Your task to perform on an android device: Clear the shopping cart on amazon. Search for "beats solo 3" on amazon, select the first entry, and add it to the cart. Image 0: 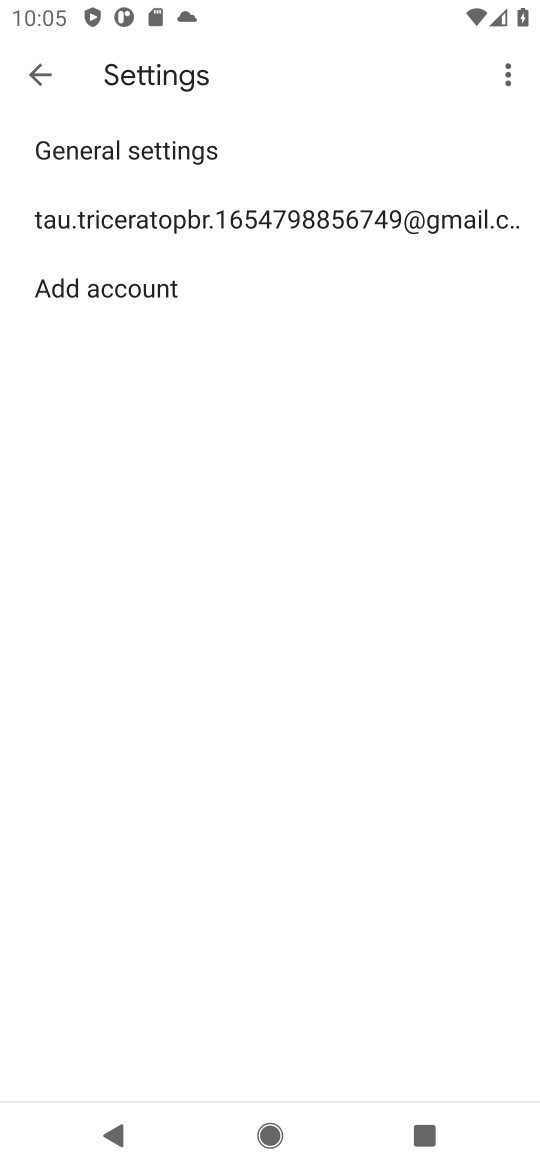
Step 0: press home button
Your task to perform on an android device: Clear the shopping cart on amazon. Search for "beats solo 3" on amazon, select the first entry, and add it to the cart. Image 1: 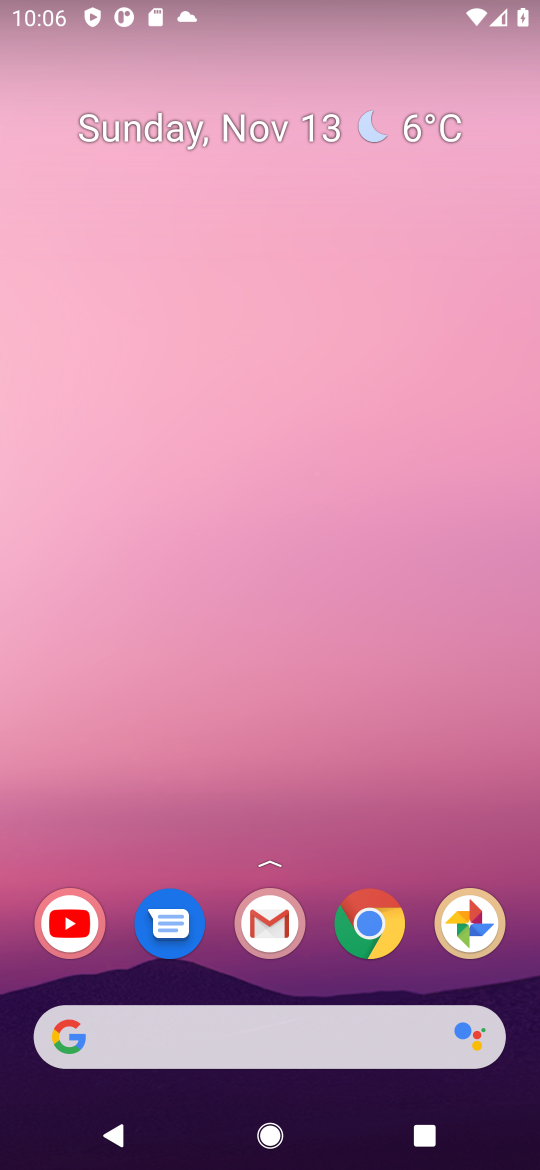
Step 1: click (348, 927)
Your task to perform on an android device: Clear the shopping cart on amazon. Search for "beats solo 3" on amazon, select the first entry, and add it to the cart. Image 2: 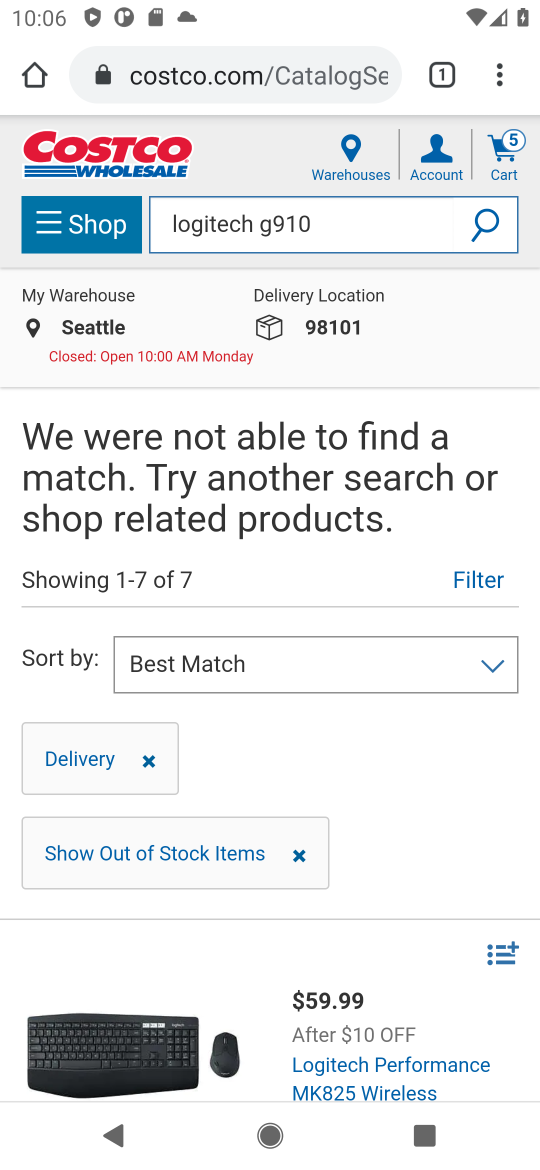
Step 2: click (226, 65)
Your task to perform on an android device: Clear the shopping cart on amazon. Search for "beats solo 3" on amazon, select the first entry, and add it to the cart. Image 3: 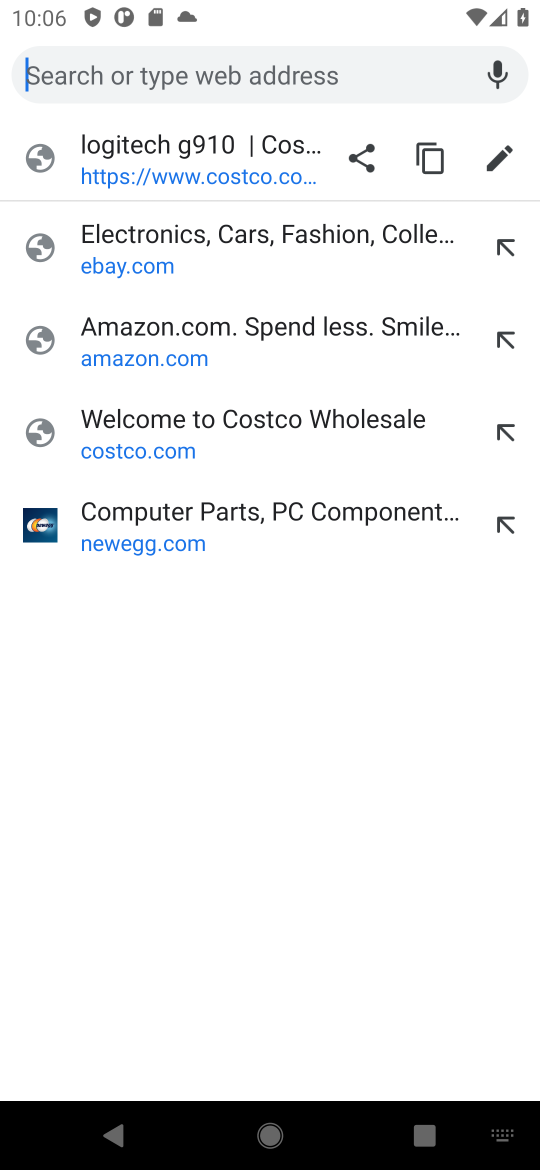
Step 3: click (261, 323)
Your task to perform on an android device: Clear the shopping cart on amazon. Search for "beats solo 3" on amazon, select the first entry, and add it to the cart. Image 4: 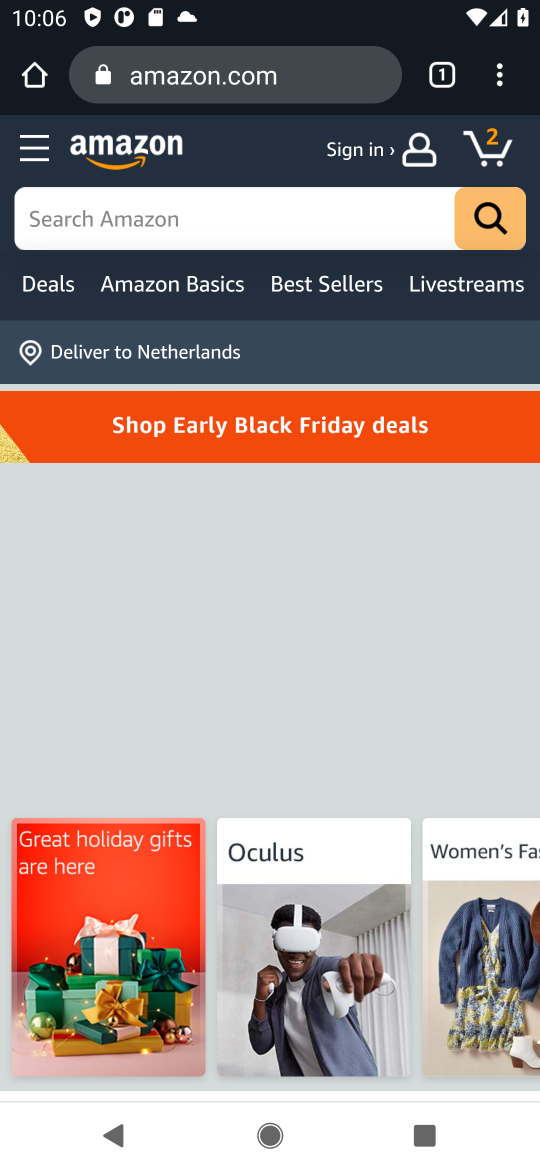
Step 4: click (486, 153)
Your task to perform on an android device: Clear the shopping cart on amazon. Search for "beats solo 3" on amazon, select the first entry, and add it to the cart. Image 5: 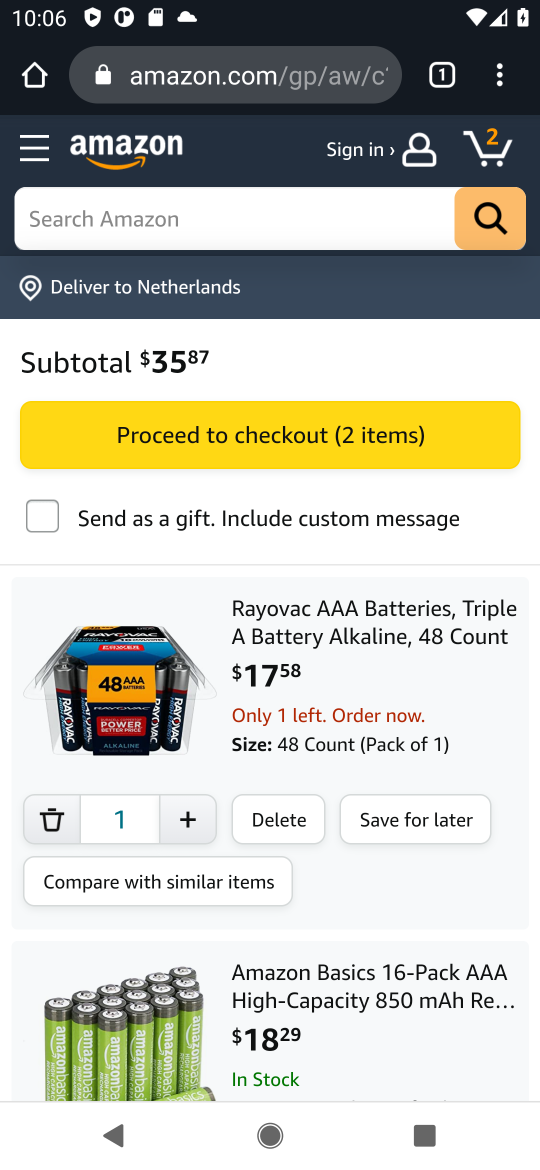
Step 5: click (280, 816)
Your task to perform on an android device: Clear the shopping cart on amazon. Search for "beats solo 3" on amazon, select the first entry, and add it to the cart. Image 6: 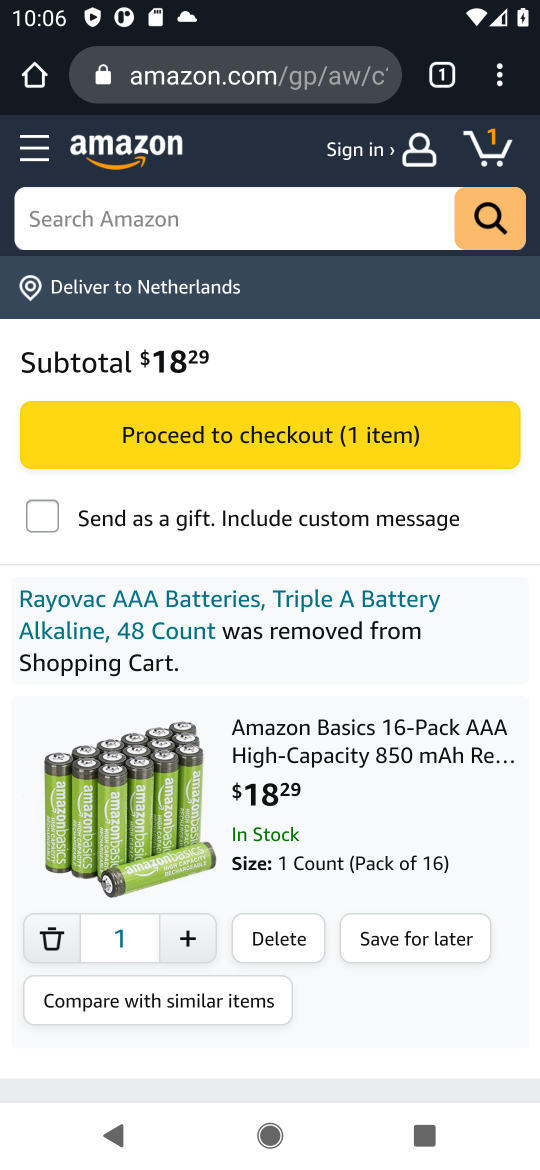
Step 6: click (299, 930)
Your task to perform on an android device: Clear the shopping cart on amazon. Search for "beats solo 3" on amazon, select the first entry, and add it to the cart. Image 7: 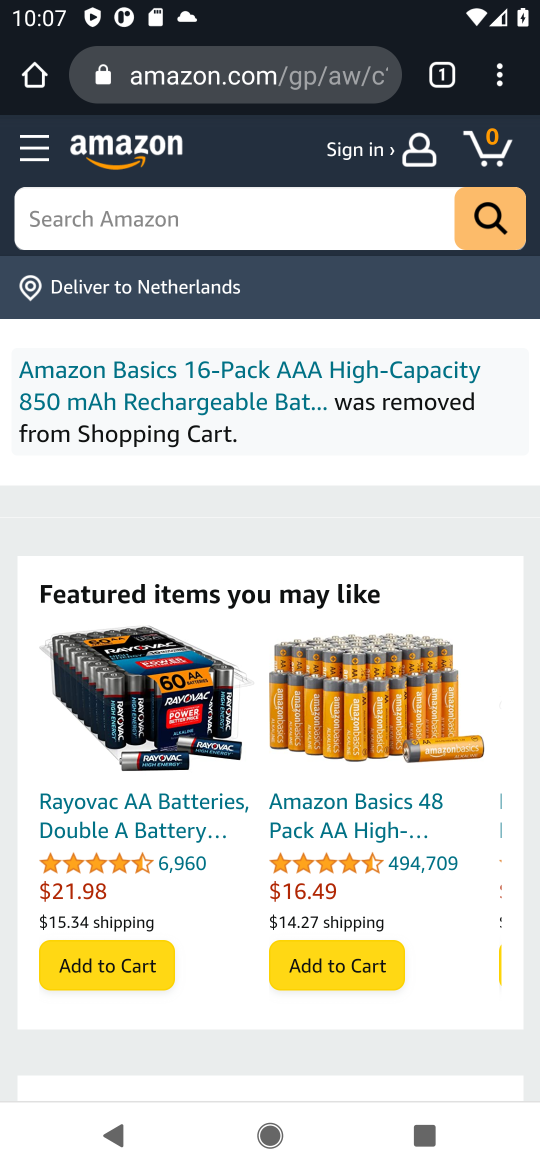
Step 7: click (339, 209)
Your task to perform on an android device: Clear the shopping cart on amazon. Search for "beats solo 3" on amazon, select the first entry, and add it to the cart. Image 8: 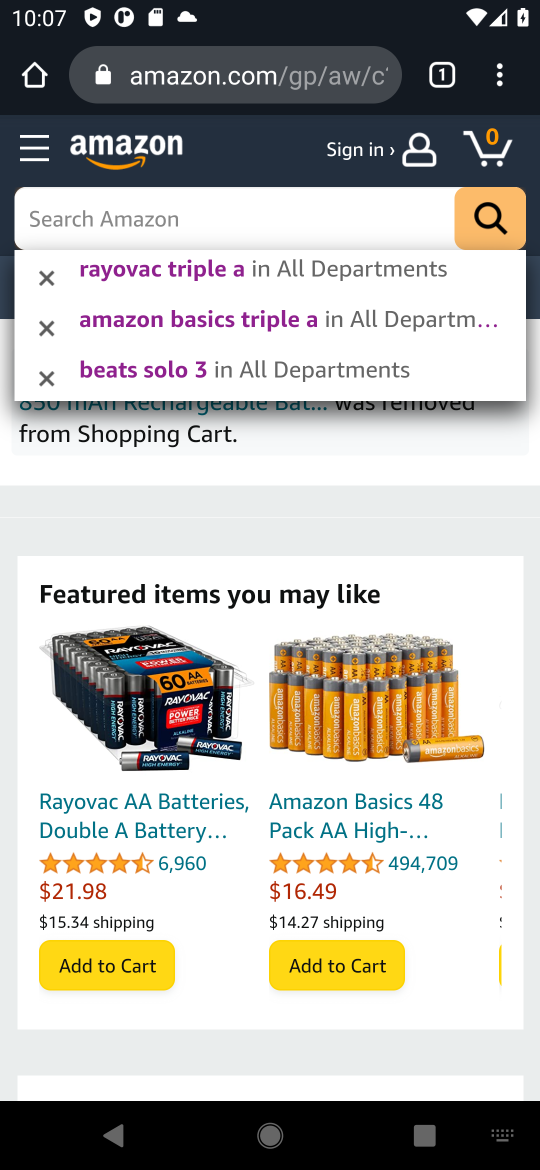
Step 8: type "beats solo 3"
Your task to perform on an android device: Clear the shopping cart on amazon. Search for "beats solo 3" on amazon, select the first entry, and add it to the cart. Image 9: 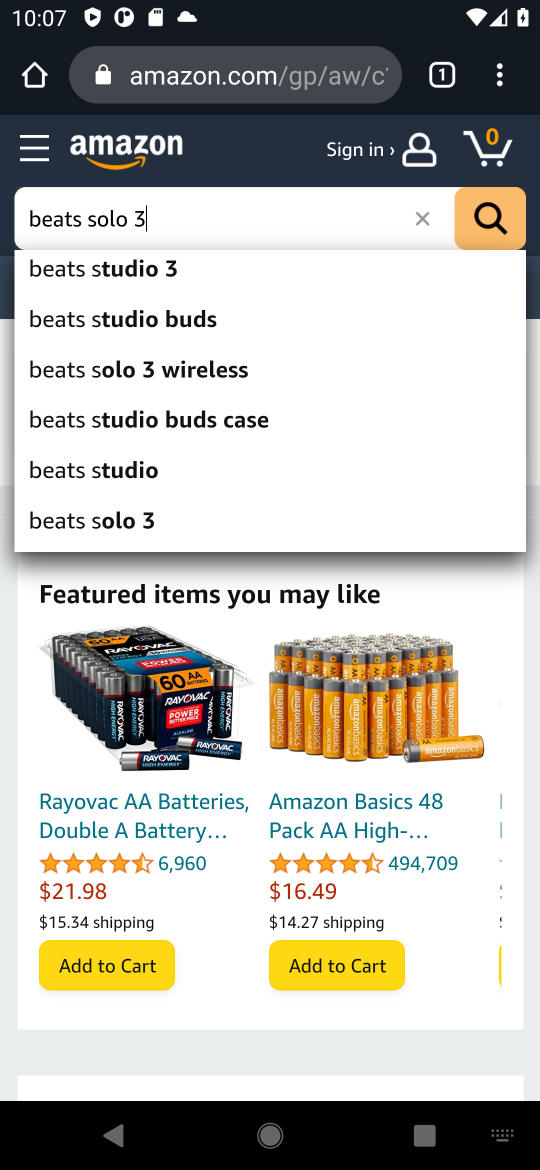
Step 9: press enter
Your task to perform on an android device: Clear the shopping cart on amazon. Search for "beats solo 3" on amazon, select the first entry, and add it to the cart. Image 10: 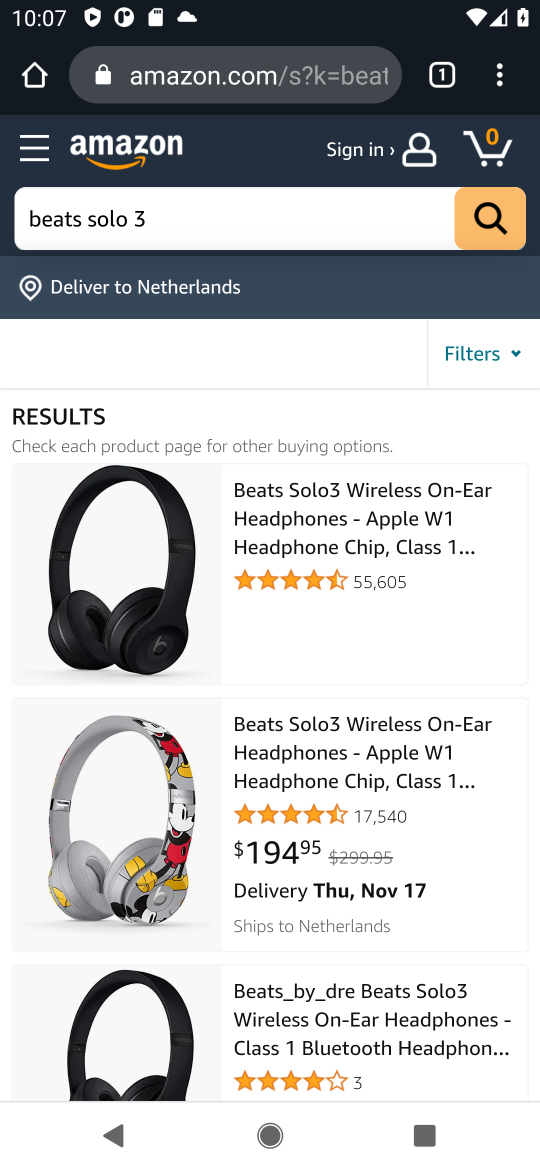
Step 10: click (106, 534)
Your task to perform on an android device: Clear the shopping cart on amazon. Search for "beats solo 3" on amazon, select the first entry, and add it to the cart. Image 11: 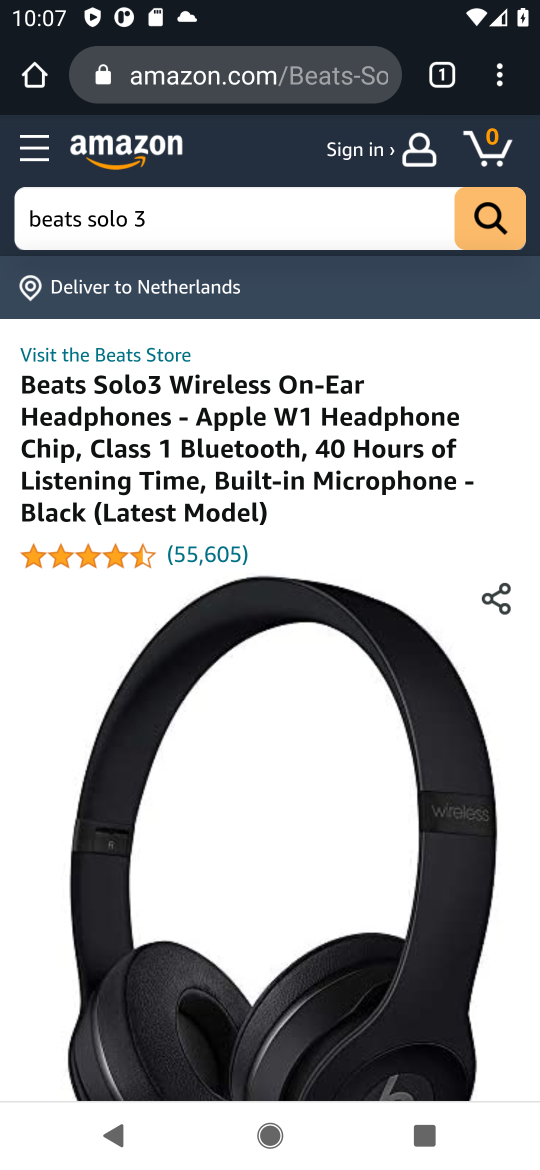
Step 11: drag from (342, 789) to (317, 200)
Your task to perform on an android device: Clear the shopping cart on amazon. Search for "beats solo 3" on amazon, select the first entry, and add it to the cart. Image 12: 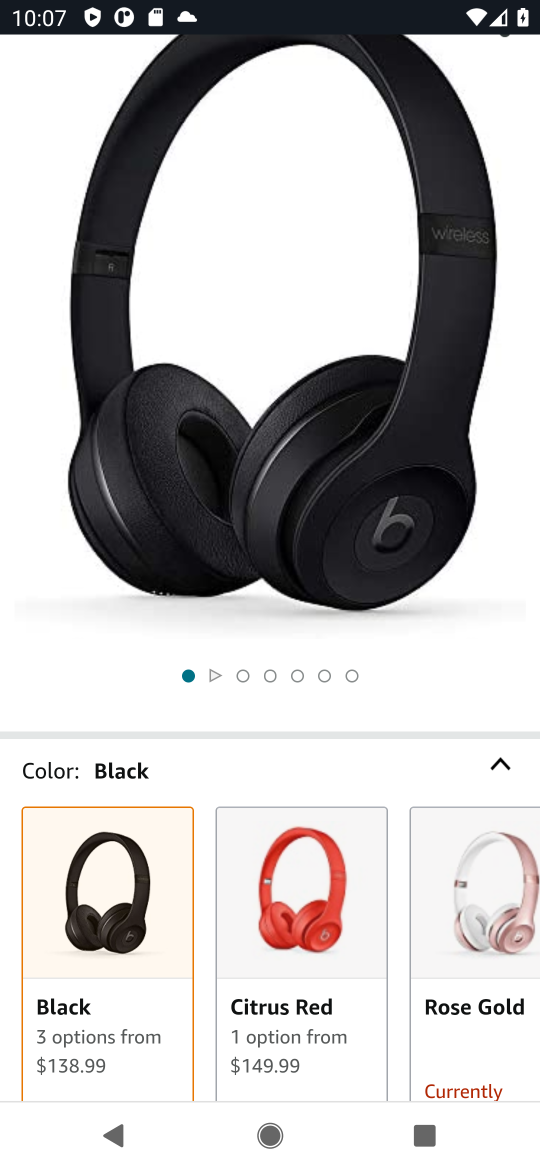
Step 12: drag from (357, 711) to (374, 238)
Your task to perform on an android device: Clear the shopping cart on amazon. Search for "beats solo 3" on amazon, select the first entry, and add it to the cart. Image 13: 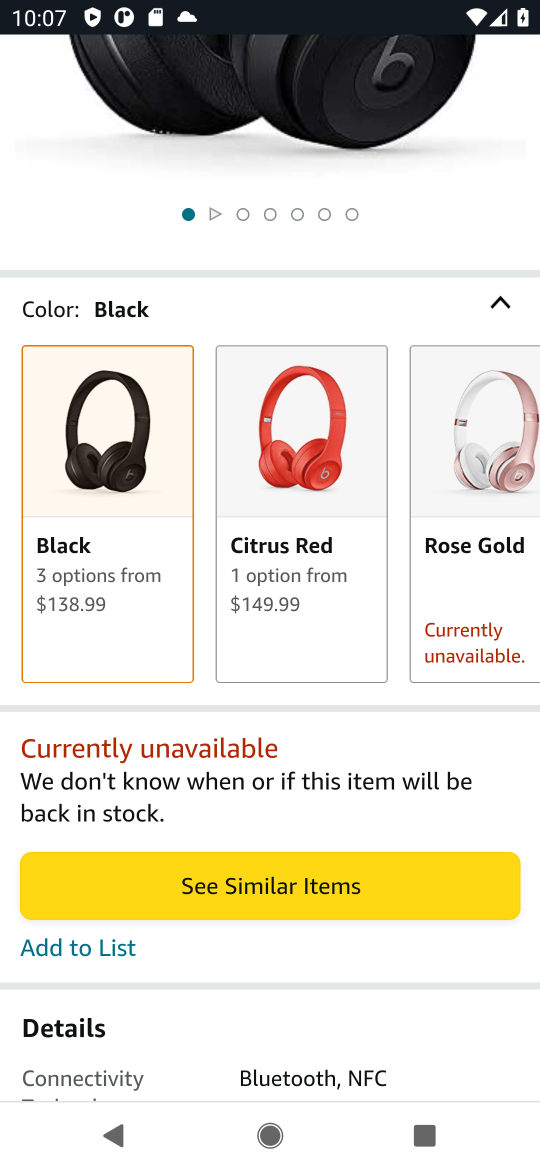
Step 13: press back button
Your task to perform on an android device: Clear the shopping cart on amazon. Search for "beats solo 3" on amazon, select the first entry, and add it to the cart. Image 14: 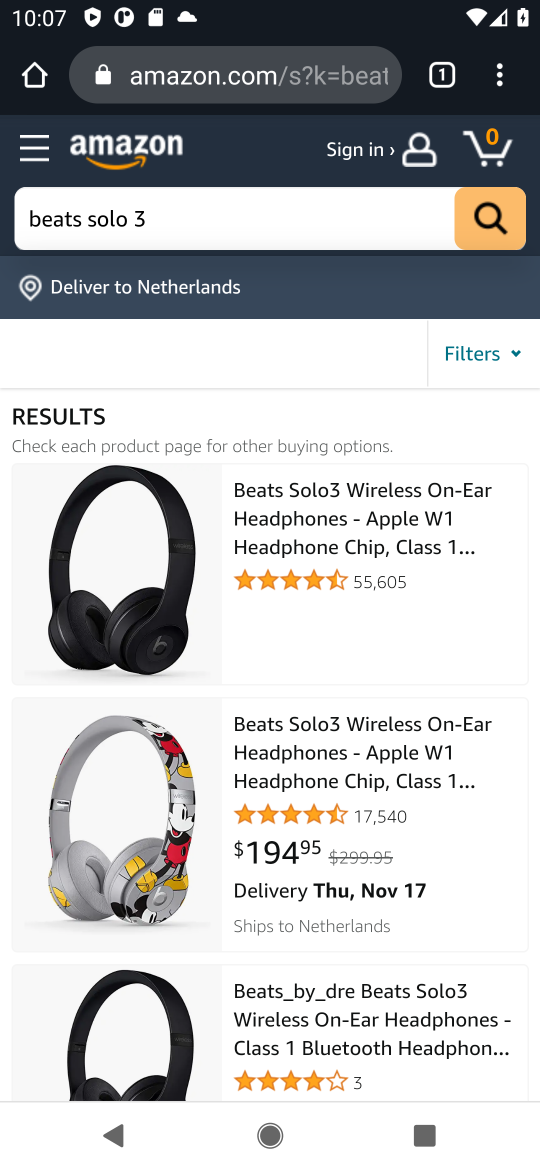
Step 14: click (168, 839)
Your task to perform on an android device: Clear the shopping cart on amazon. Search for "beats solo 3" on amazon, select the first entry, and add it to the cart. Image 15: 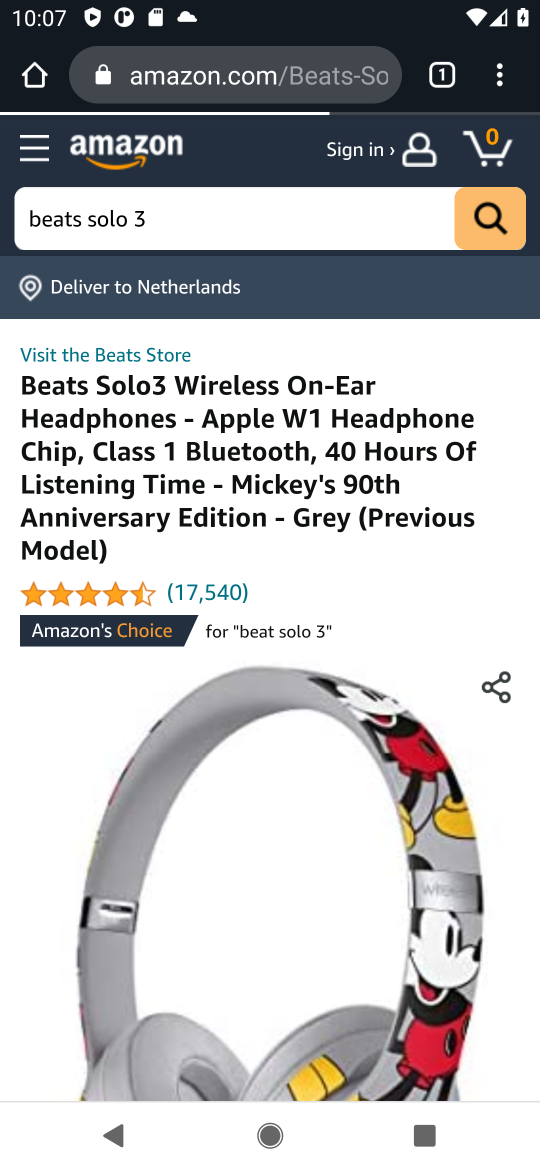
Step 15: drag from (400, 782) to (435, 270)
Your task to perform on an android device: Clear the shopping cart on amazon. Search for "beats solo 3" on amazon, select the first entry, and add it to the cart. Image 16: 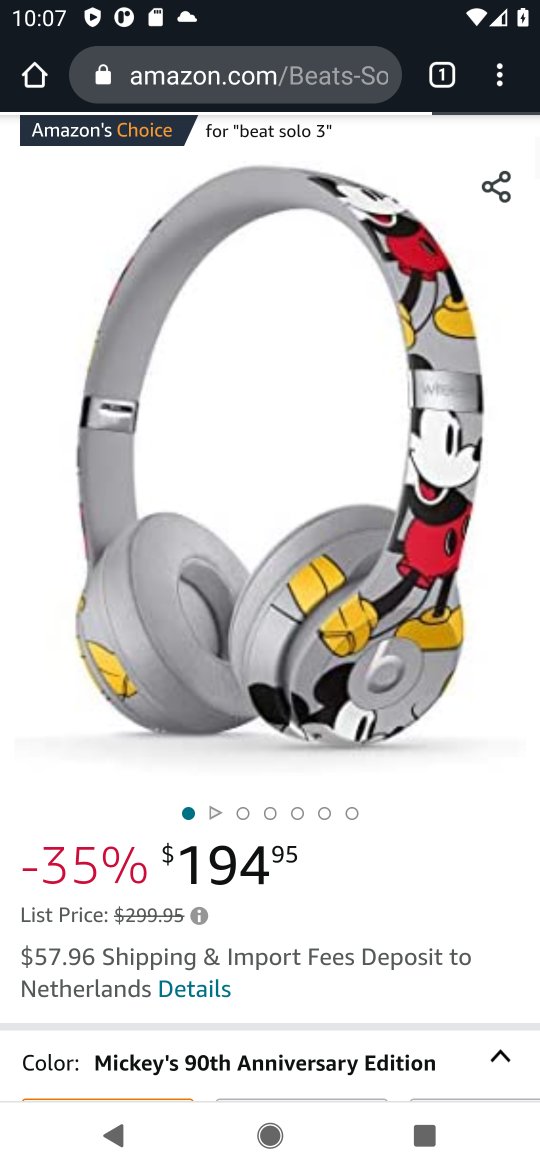
Step 16: drag from (410, 857) to (399, 480)
Your task to perform on an android device: Clear the shopping cart on amazon. Search for "beats solo 3" on amazon, select the first entry, and add it to the cart. Image 17: 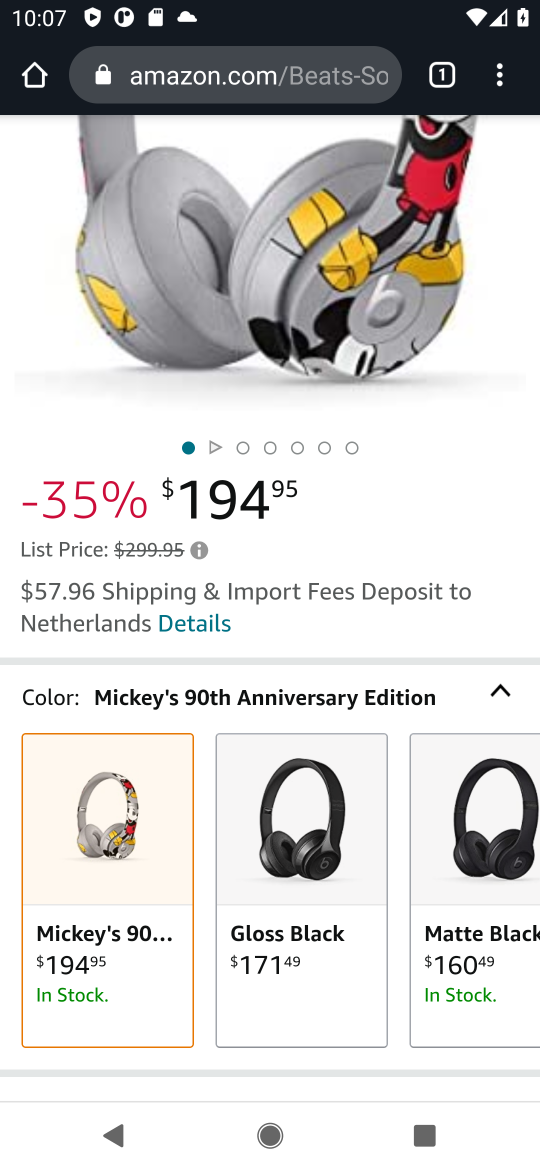
Step 17: drag from (256, 1019) to (306, 467)
Your task to perform on an android device: Clear the shopping cart on amazon. Search for "beats solo 3" on amazon, select the first entry, and add it to the cart. Image 18: 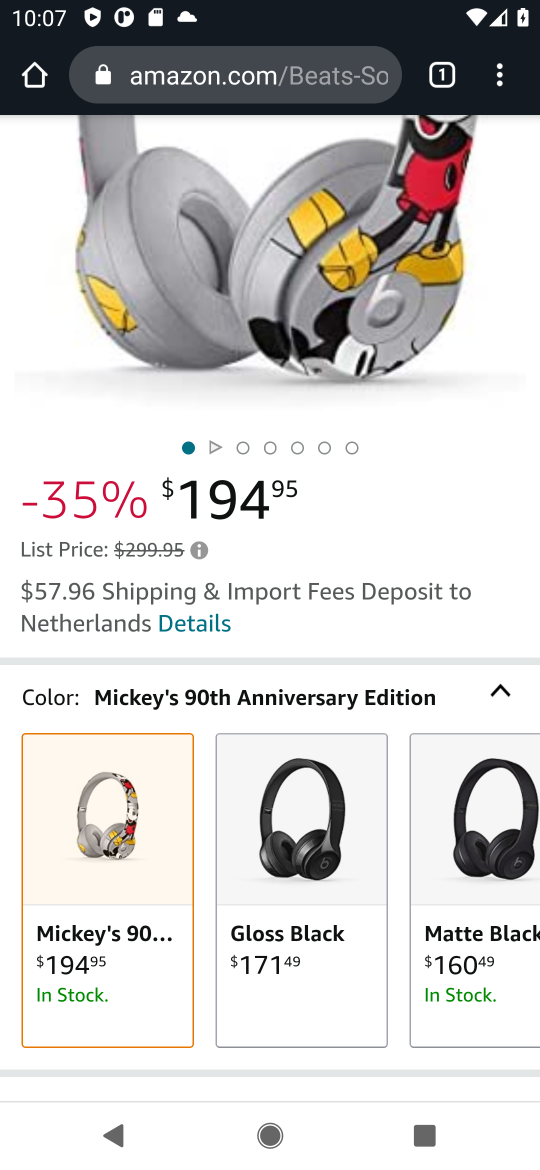
Step 18: drag from (344, 1052) to (391, 439)
Your task to perform on an android device: Clear the shopping cart on amazon. Search for "beats solo 3" on amazon, select the first entry, and add it to the cart. Image 19: 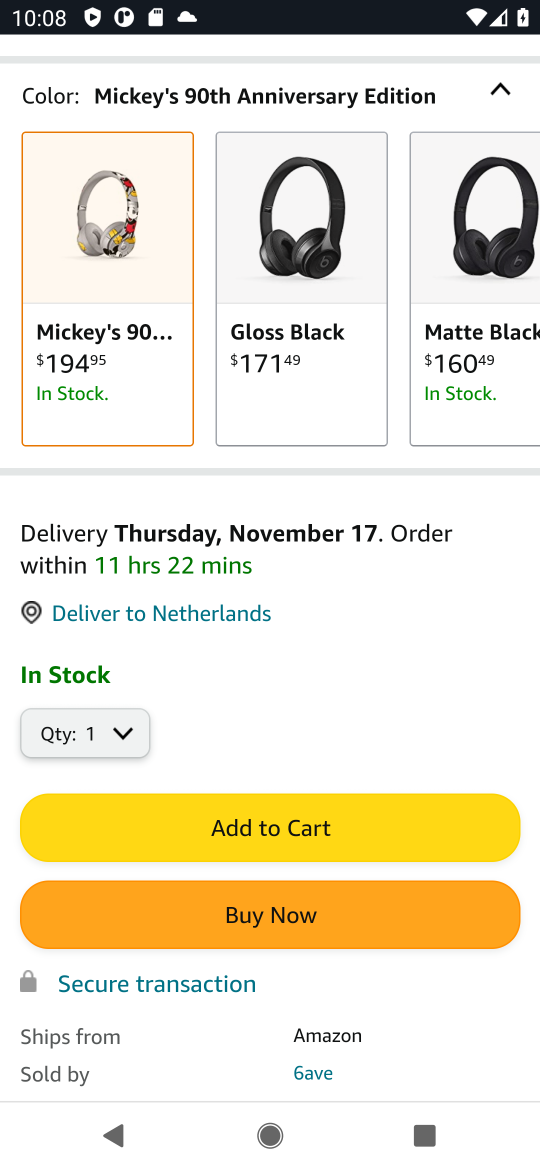
Step 19: click (332, 842)
Your task to perform on an android device: Clear the shopping cart on amazon. Search for "beats solo 3" on amazon, select the first entry, and add it to the cart. Image 20: 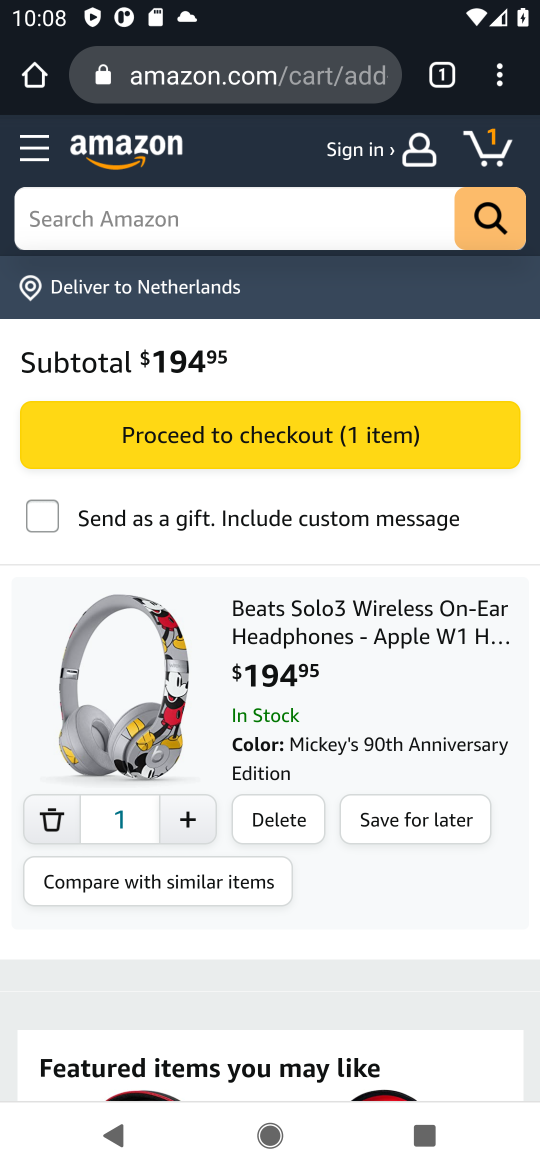
Step 20: task complete